Your task to perform on an android device: move a message to another label in the gmail app Image 0: 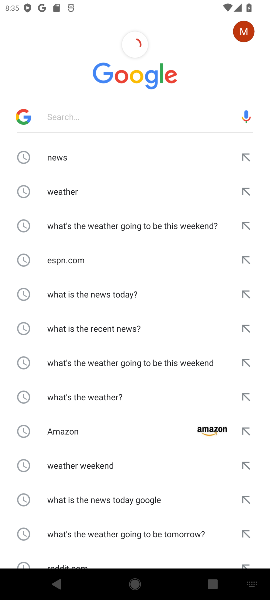
Step 0: press home button
Your task to perform on an android device: move a message to another label in the gmail app Image 1: 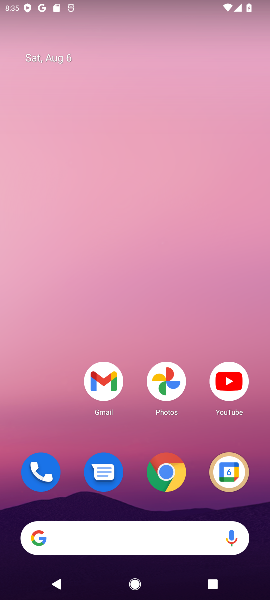
Step 1: drag from (255, 568) to (234, 176)
Your task to perform on an android device: move a message to another label in the gmail app Image 2: 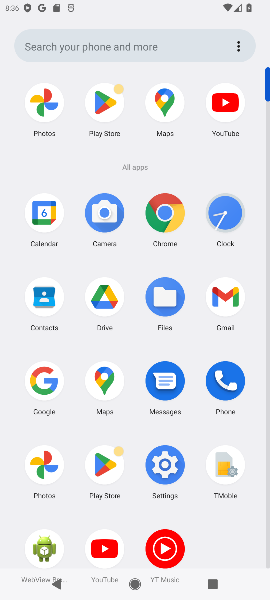
Step 2: click (217, 307)
Your task to perform on an android device: move a message to another label in the gmail app Image 3: 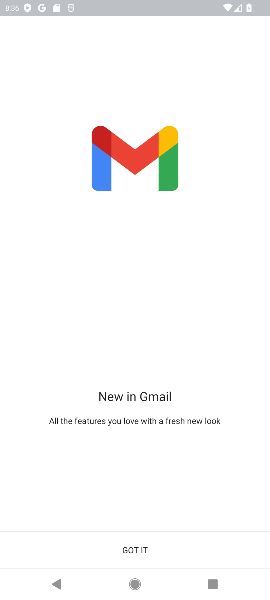
Step 3: click (131, 549)
Your task to perform on an android device: move a message to another label in the gmail app Image 4: 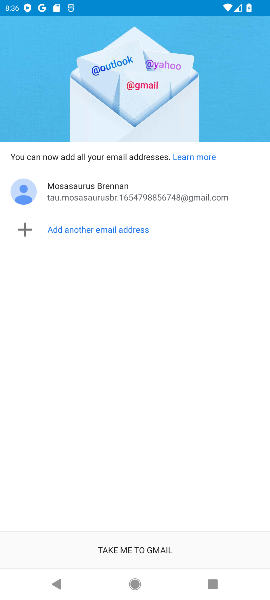
Step 4: click (131, 549)
Your task to perform on an android device: move a message to another label in the gmail app Image 5: 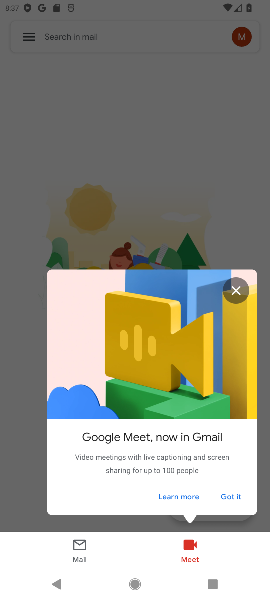
Step 5: click (238, 294)
Your task to perform on an android device: move a message to another label in the gmail app Image 6: 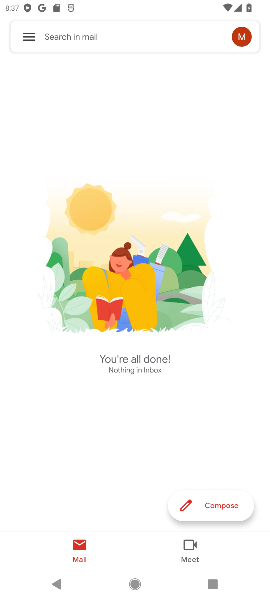
Step 6: task complete